Your task to perform on an android device: allow notifications from all sites in the chrome app Image 0: 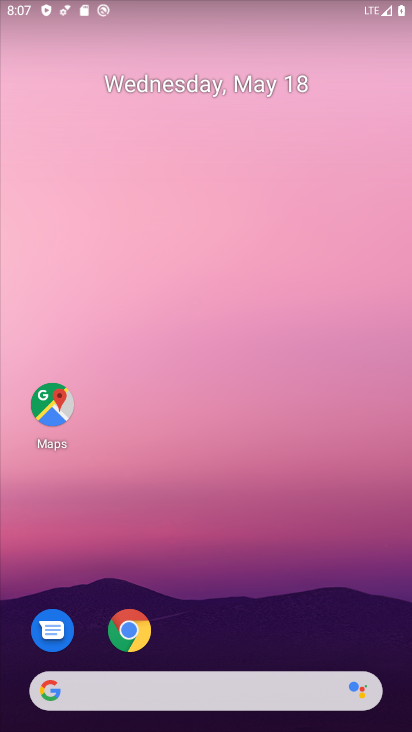
Step 0: press home button
Your task to perform on an android device: allow notifications from all sites in the chrome app Image 1: 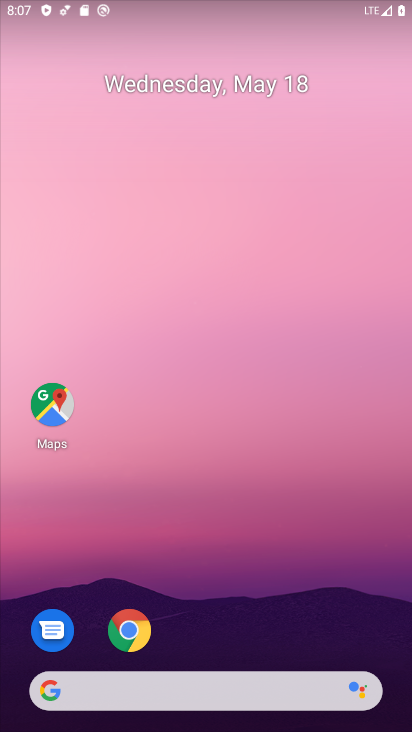
Step 1: click (130, 636)
Your task to perform on an android device: allow notifications from all sites in the chrome app Image 2: 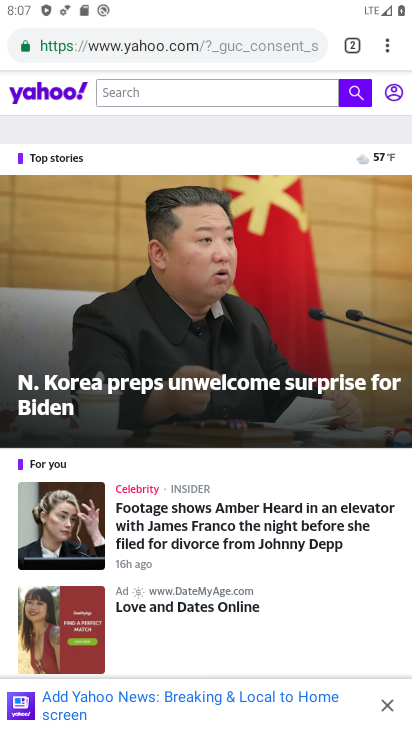
Step 2: drag from (391, 51) to (288, 562)
Your task to perform on an android device: allow notifications from all sites in the chrome app Image 3: 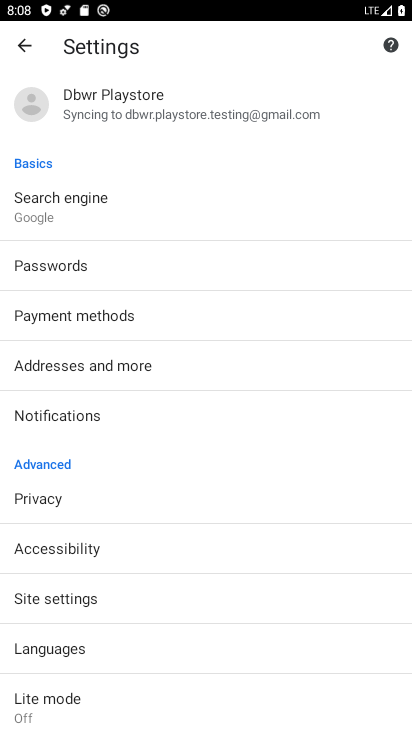
Step 3: click (73, 598)
Your task to perform on an android device: allow notifications from all sites in the chrome app Image 4: 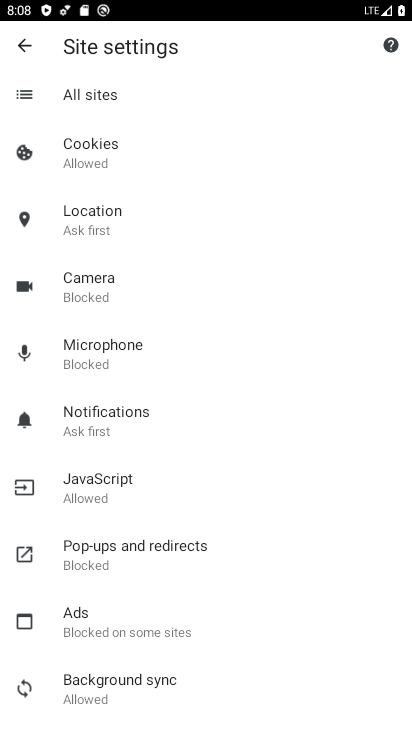
Step 4: click (109, 423)
Your task to perform on an android device: allow notifications from all sites in the chrome app Image 5: 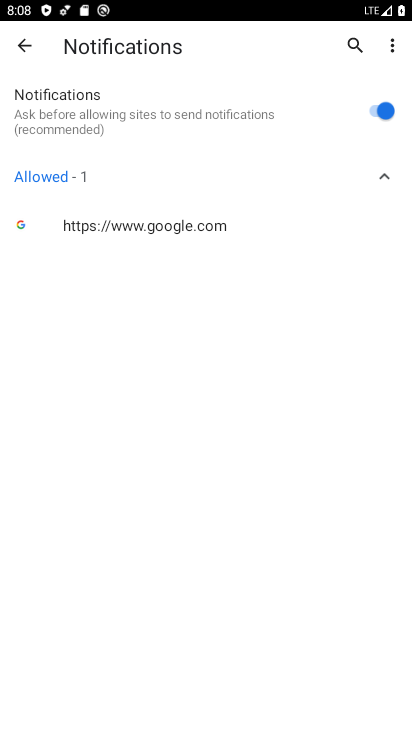
Step 5: click (375, 110)
Your task to perform on an android device: allow notifications from all sites in the chrome app Image 6: 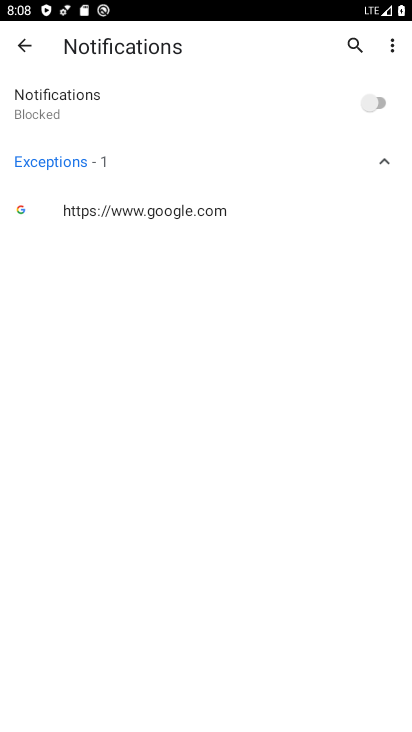
Step 6: click (383, 104)
Your task to perform on an android device: allow notifications from all sites in the chrome app Image 7: 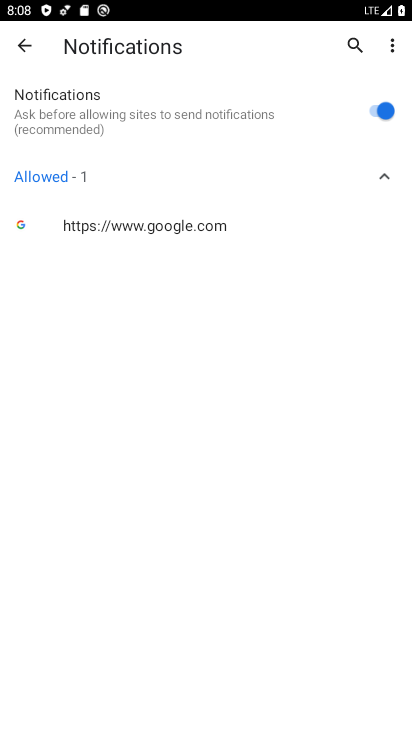
Step 7: task complete